Your task to perform on an android device: turn off priority inbox in the gmail app Image 0: 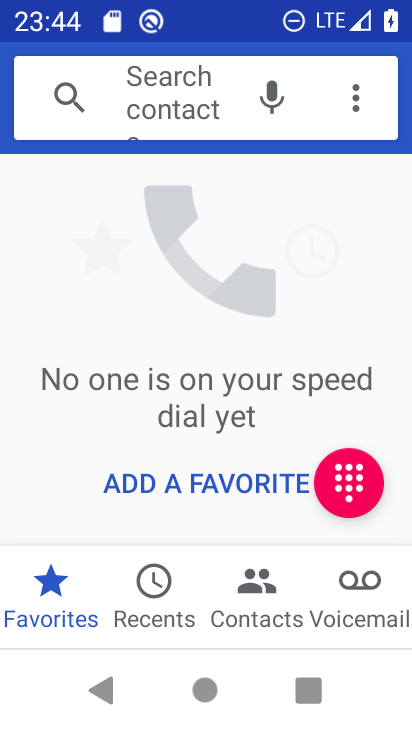
Step 0: drag from (195, 497) to (277, 142)
Your task to perform on an android device: turn off priority inbox in the gmail app Image 1: 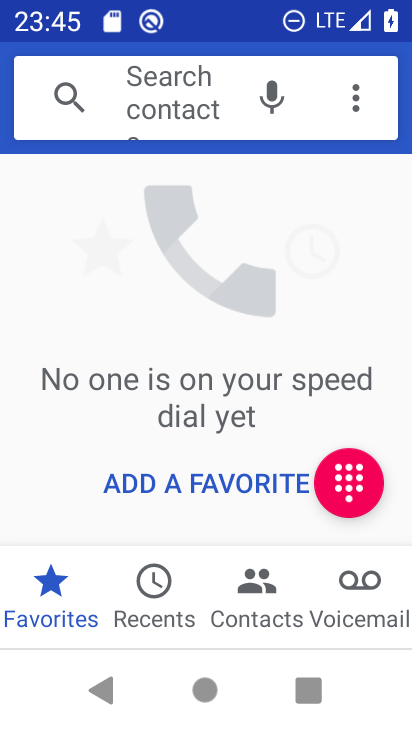
Step 1: press home button
Your task to perform on an android device: turn off priority inbox in the gmail app Image 2: 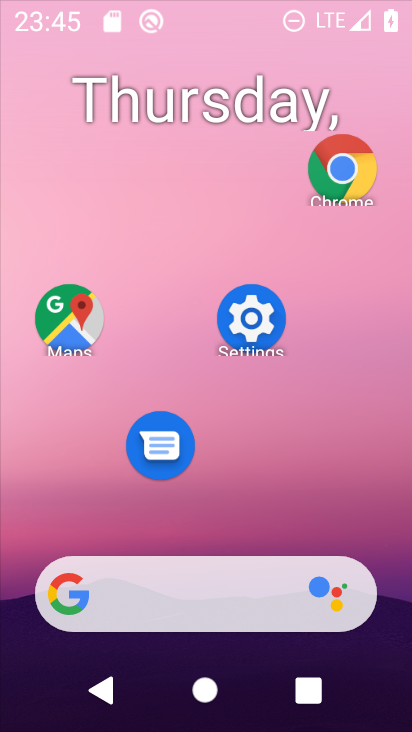
Step 2: drag from (177, 485) to (291, 192)
Your task to perform on an android device: turn off priority inbox in the gmail app Image 3: 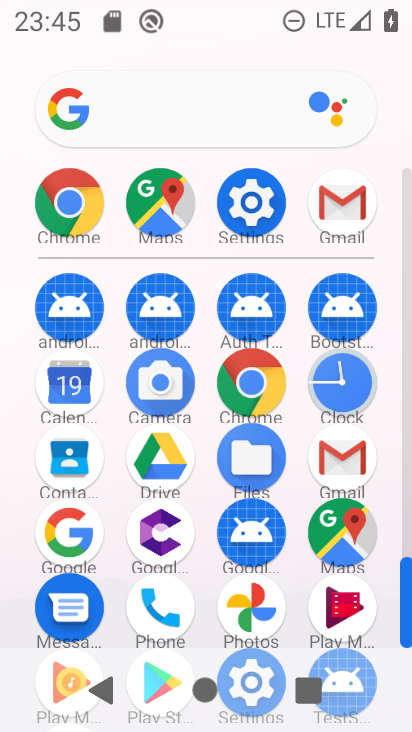
Step 3: click (342, 444)
Your task to perform on an android device: turn off priority inbox in the gmail app Image 4: 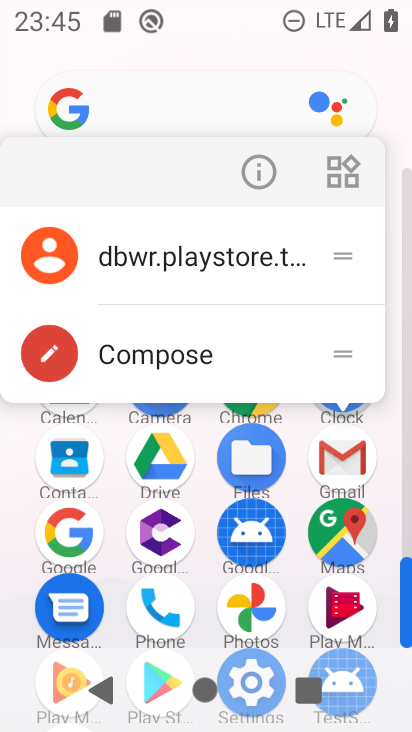
Step 4: click (174, 258)
Your task to perform on an android device: turn off priority inbox in the gmail app Image 5: 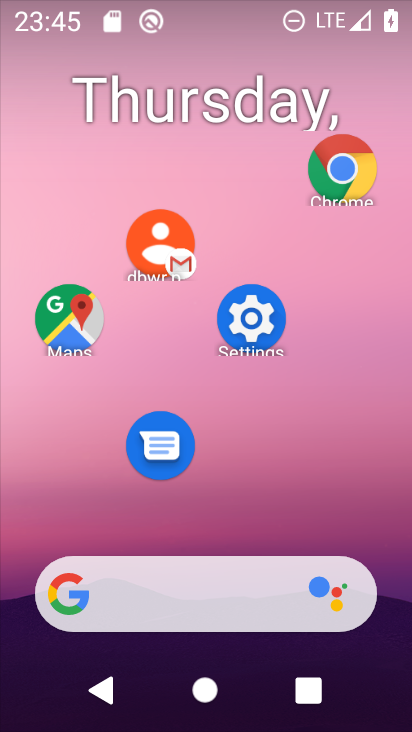
Step 5: click (143, 243)
Your task to perform on an android device: turn off priority inbox in the gmail app Image 6: 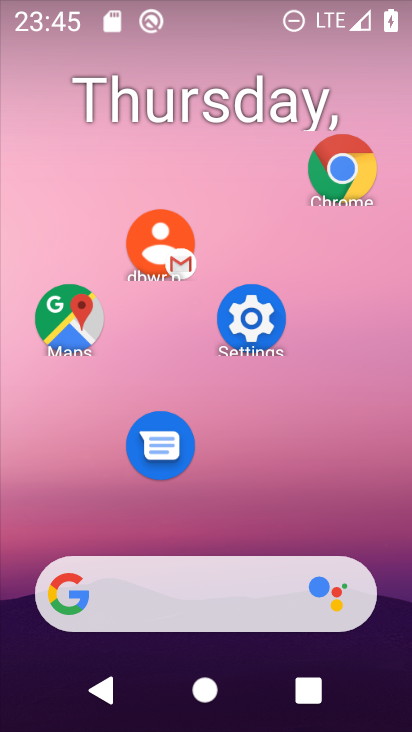
Step 6: click (194, 244)
Your task to perform on an android device: turn off priority inbox in the gmail app Image 7: 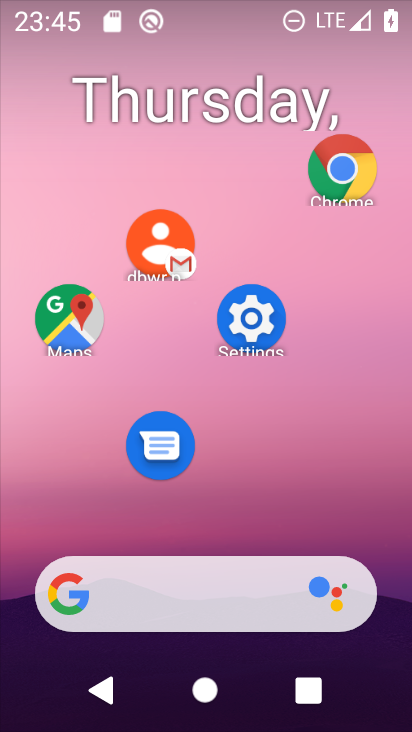
Step 7: click (157, 241)
Your task to perform on an android device: turn off priority inbox in the gmail app Image 8: 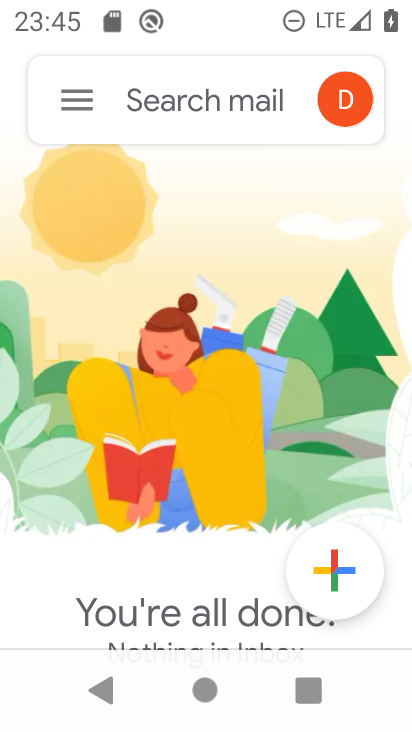
Step 8: click (58, 117)
Your task to perform on an android device: turn off priority inbox in the gmail app Image 9: 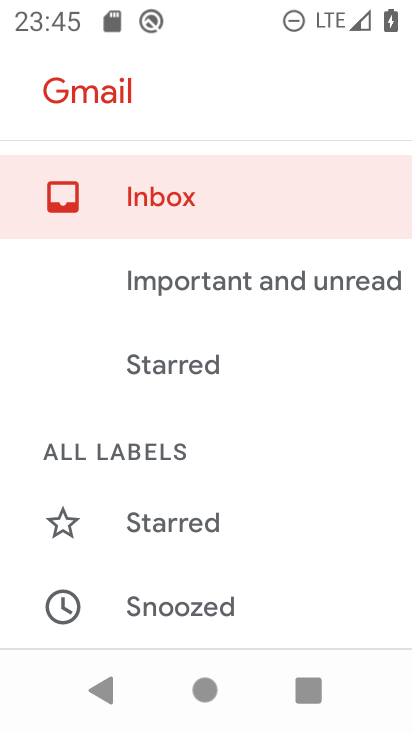
Step 9: drag from (192, 667) to (269, 61)
Your task to perform on an android device: turn off priority inbox in the gmail app Image 10: 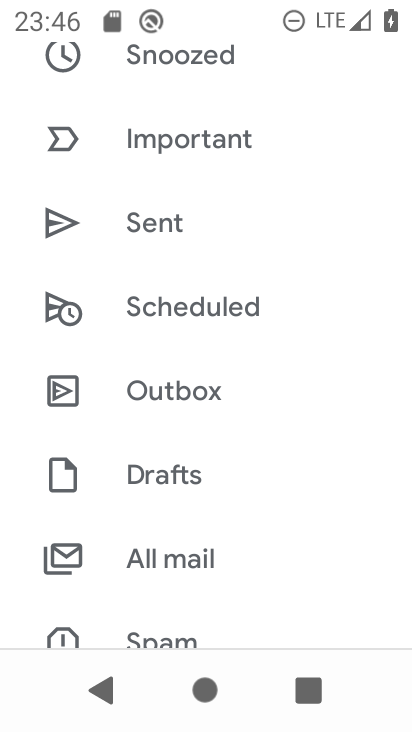
Step 10: drag from (142, 562) to (243, 129)
Your task to perform on an android device: turn off priority inbox in the gmail app Image 11: 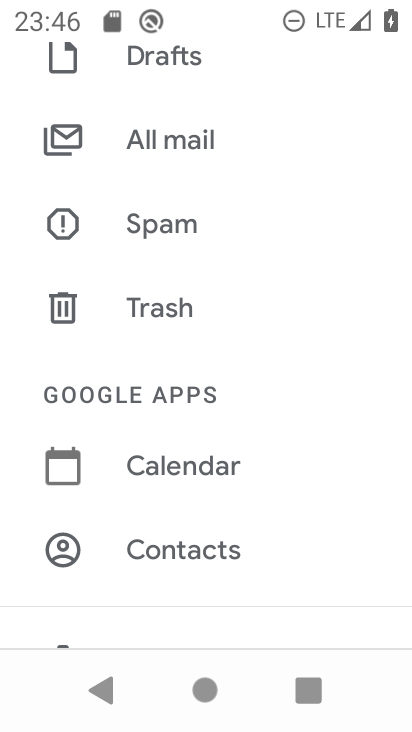
Step 11: drag from (177, 544) to (196, 204)
Your task to perform on an android device: turn off priority inbox in the gmail app Image 12: 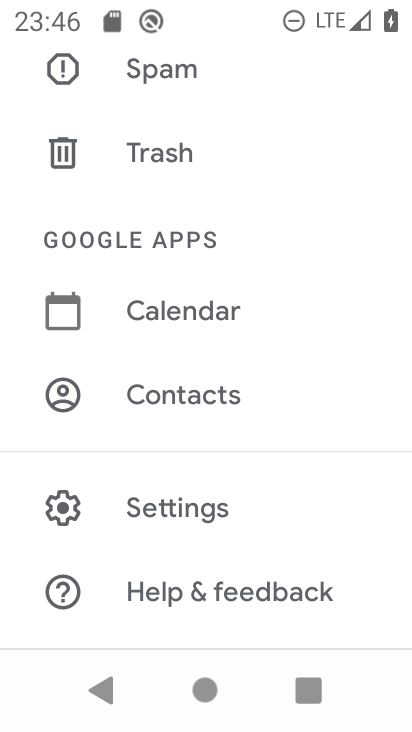
Step 12: click (154, 485)
Your task to perform on an android device: turn off priority inbox in the gmail app Image 13: 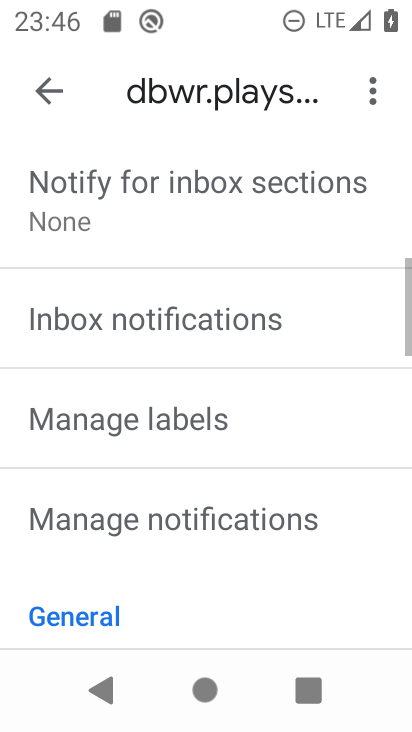
Step 13: drag from (141, 232) to (192, 713)
Your task to perform on an android device: turn off priority inbox in the gmail app Image 14: 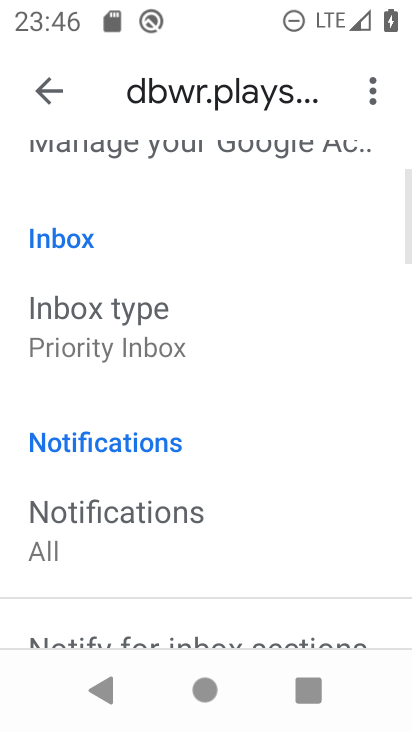
Step 14: drag from (166, 232) to (152, 435)
Your task to perform on an android device: turn off priority inbox in the gmail app Image 15: 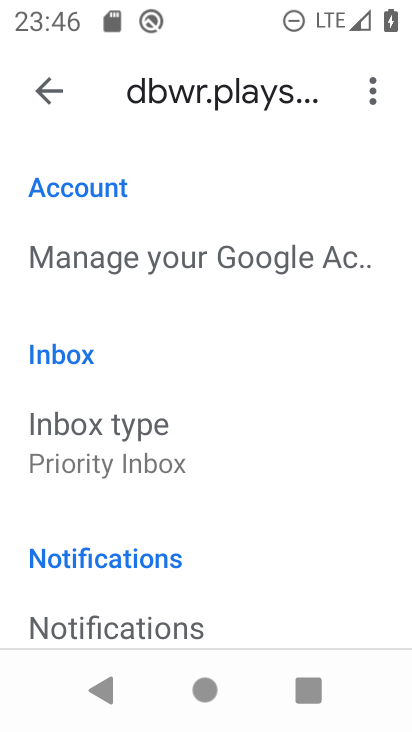
Step 15: click (160, 436)
Your task to perform on an android device: turn off priority inbox in the gmail app Image 16: 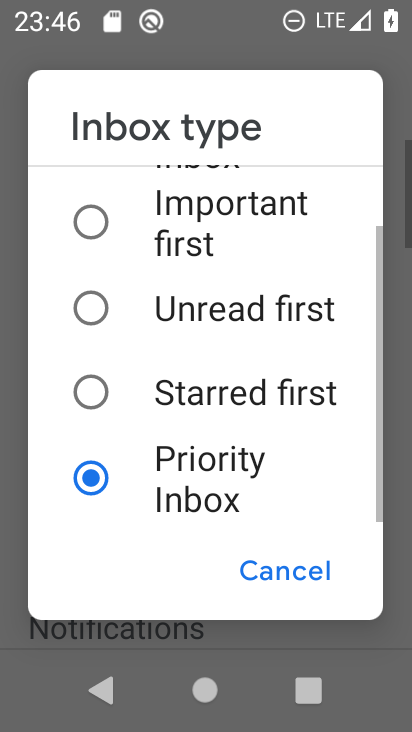
Step 16: drag from (216, 206) to (138, 644)
Your task to perform on an android device: turn off priority inbox in the gmail app Image 17: 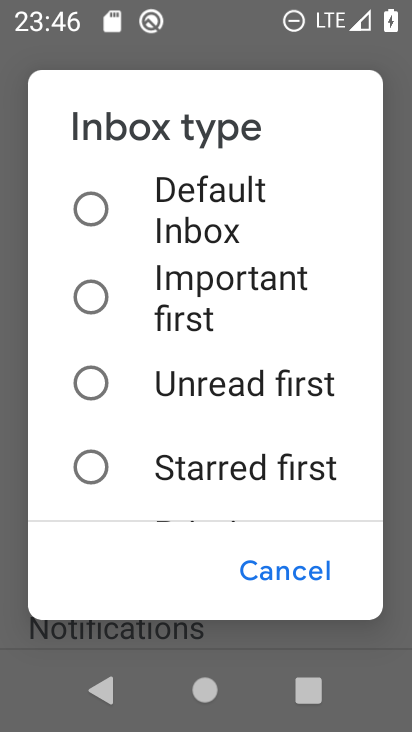
Step 17: click (136, 188)
Your task to perform on an android device: turn off priority inbox in the gmail app Image 18: 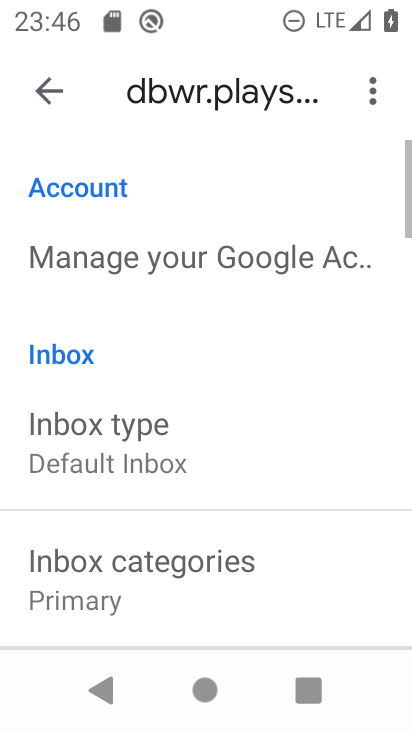
Step 18: task complete